Your task to perform on an android device: remove spam from my inbox in the gmail app Image 0: 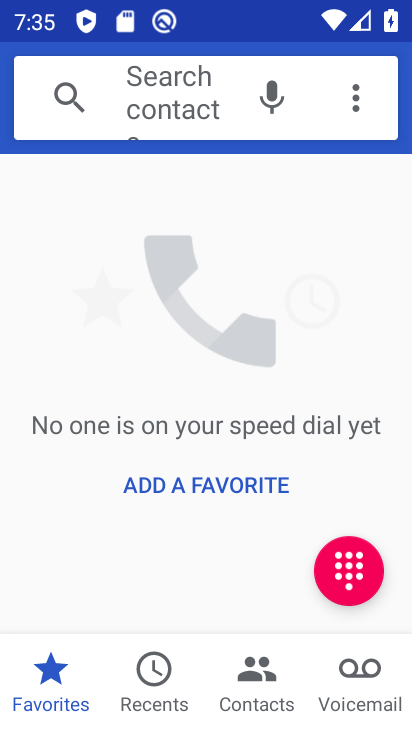
Step 0: press home button
Your task to perform on an android device: remove spam from my inbox in the gmail app Image 1: 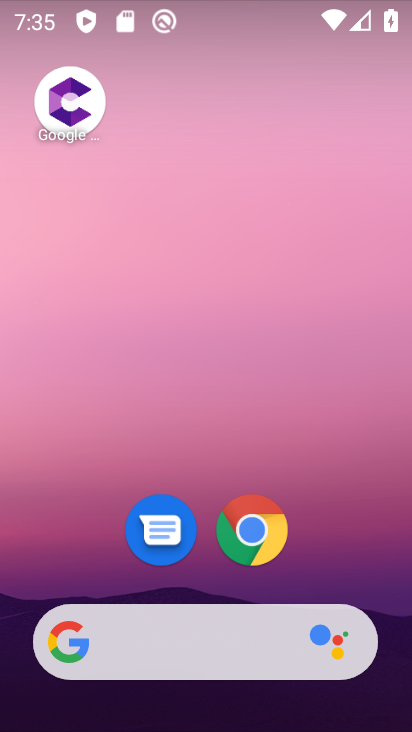
Step 1: drag from (213, 577) to (201, 123)
Your task to perform on an android device: remove spam from my inbox in the gmail app Image 2: 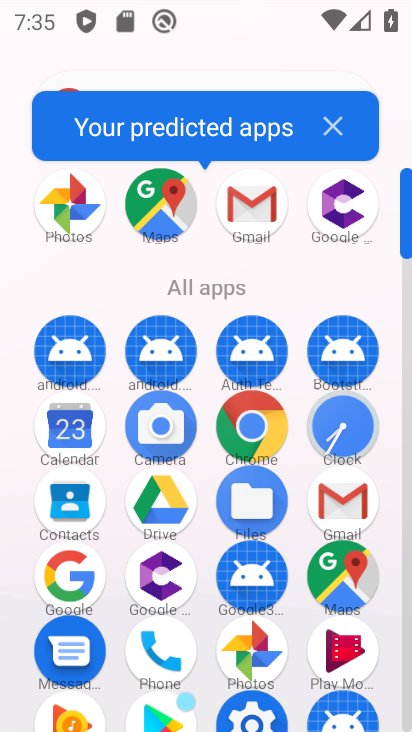
Step 2: click (255, 191)
Your task to perform on an android device: remove spam from my inbox in the gmail app Image 3: 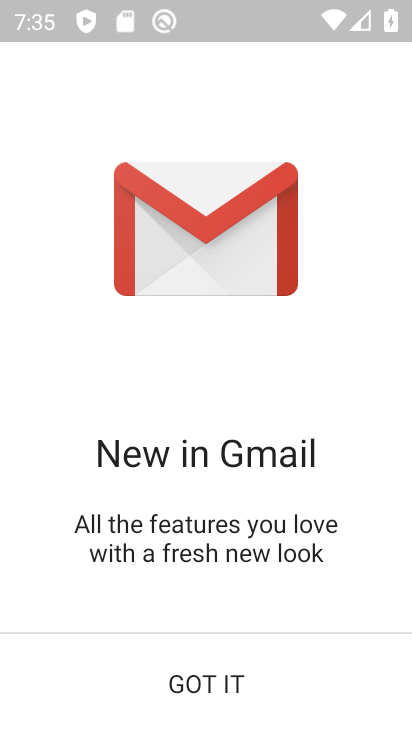
Step 3: click (207, 685)
Your task to perform on an android device: remove spam from my inbox in the gmail app Image 4: 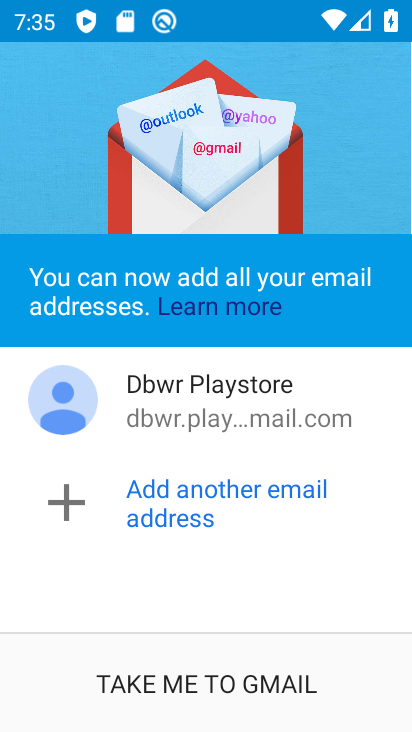
Step 4: click (207, 685)
Your task to perform on an android device: remove spam from my inbox in the gmail app Image 5: 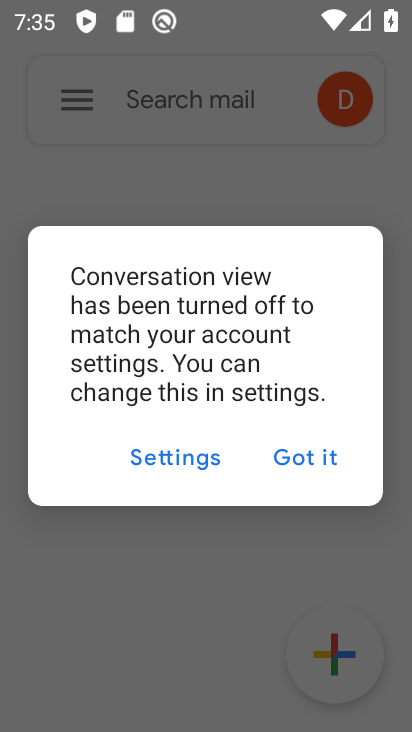
Step 5: click (339, 447)
Your task to perform on an android device: remove spam from my inbox in the gmail app Image 6: 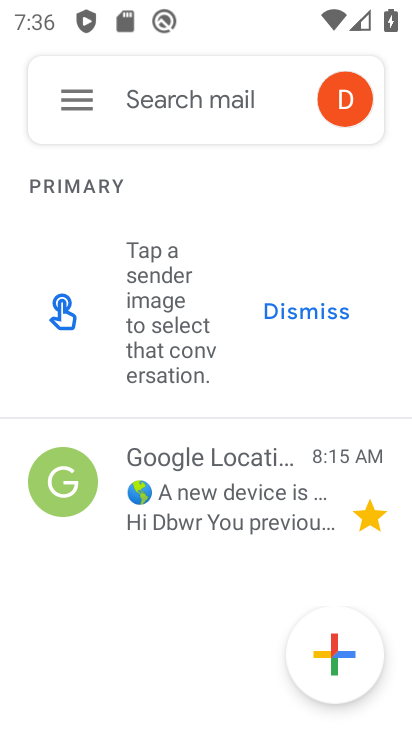
Step 6: click (64, 97)
Your task to perform on an android device: remove spam from my inbox in the gmail app Image 7: 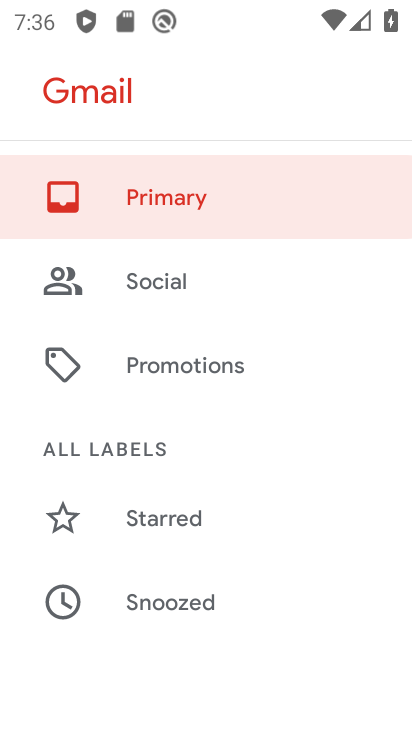
Step 7: drag from (115, 618) to (220, 25)
Your task to perform on an android device: remove spam from my inbox in the gmail app Image 8: 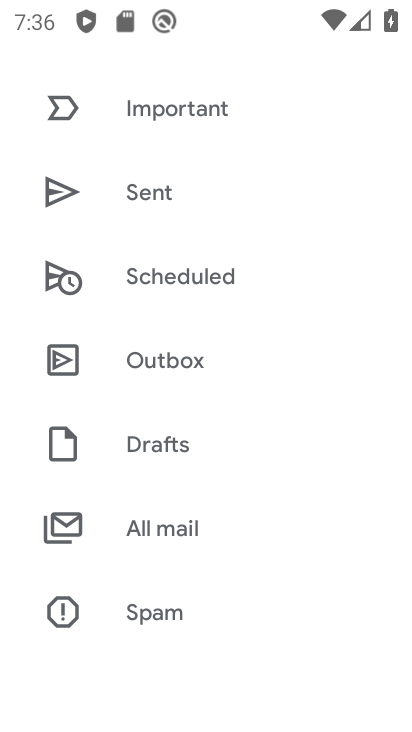
Step 8: click (143, 600)
Your task to perform on an android device: remove spam from my inbox in the gmail app Image 9: 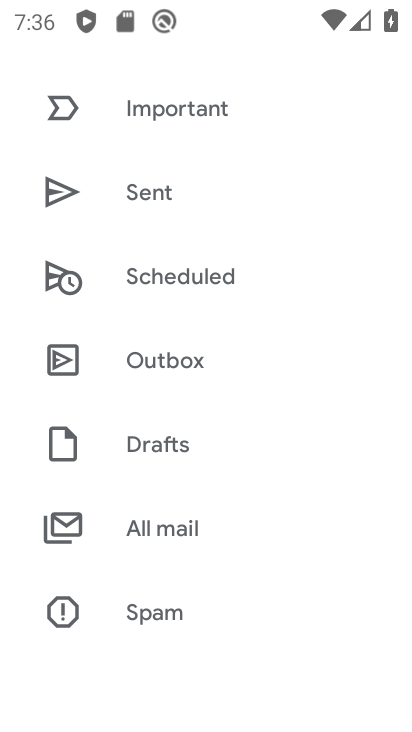
Step 9: click (143, 600)
Your task to perform on an android device: remove spam from my inbox in the gmail app Image 10: 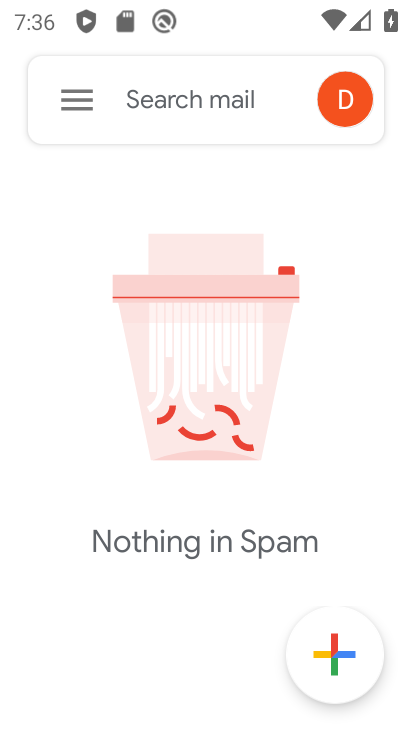
Step 10: task complete